Your task to perform on an android device: Open display settings Image 0: 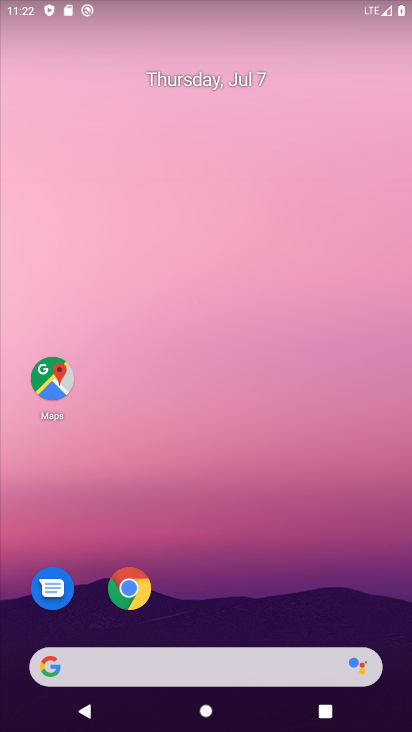
Step 0: drag from (180, 12) to (260, 18)
Your task to perform on an android device: Open display settings Image 1: 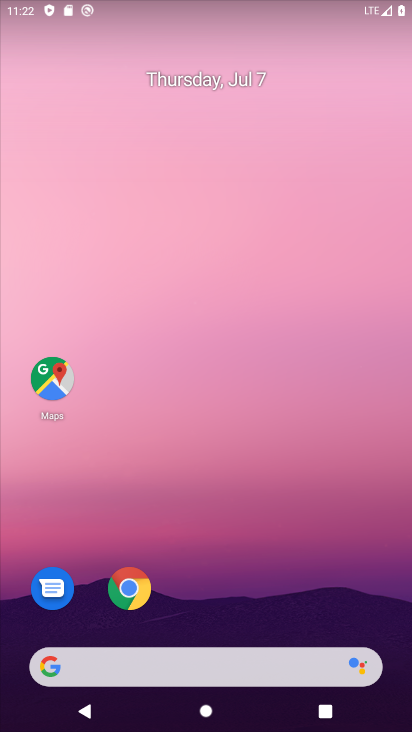
Step 1: drag from (242, 525) to (252, 176)
Your task to perform on an android device: Open display settings Image 2: 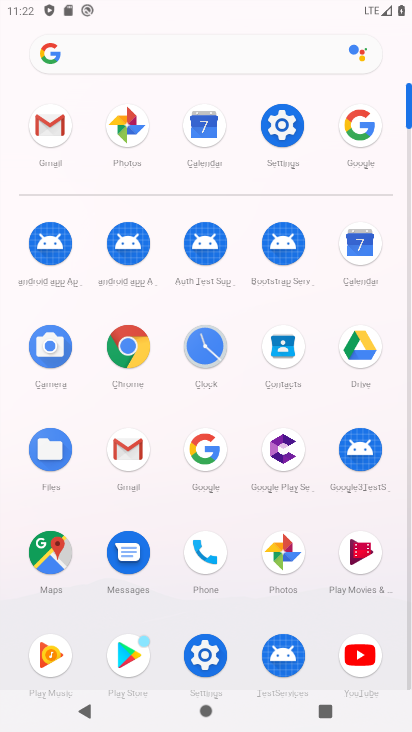
Step 2: click (284, 116)
Your task to perform on an android device: Open display settings Image 3: 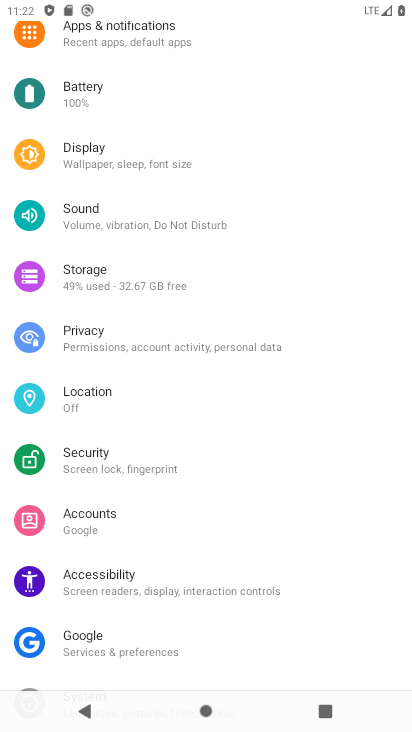
Step 3: click (154, 156)
Your task to perform on an android device: Open display settings Image 4: 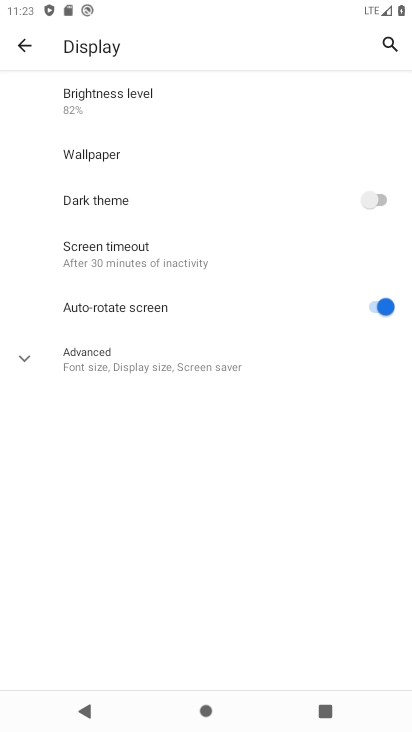
Step 4: task complete